Your task to perform on an android device: turn off notifications settings in the gmail app Image 0: 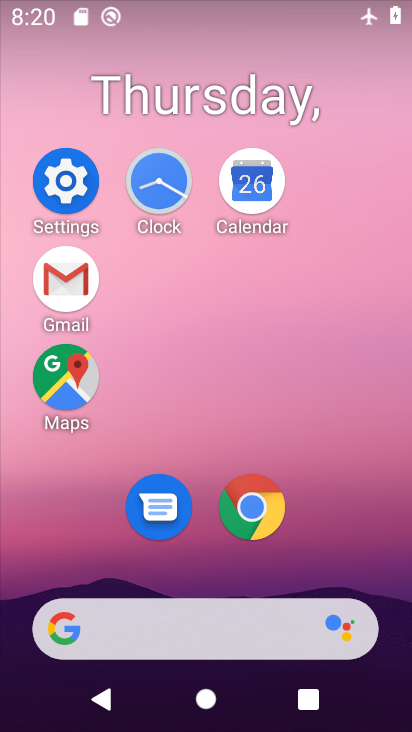
Step 0: click (73, 259)
Your task to perform on an android device: turn off notifications settings in the gmail app Image 1: 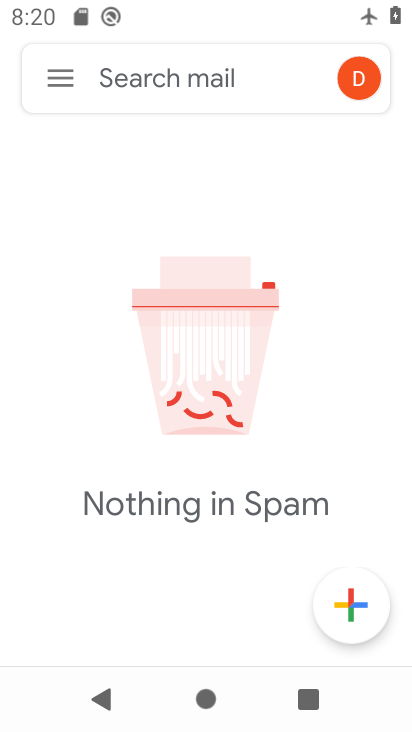
Step 1: click (39, 95)
Your task to perform on an android device: turn off notifications settings in the gmail app Image 2: 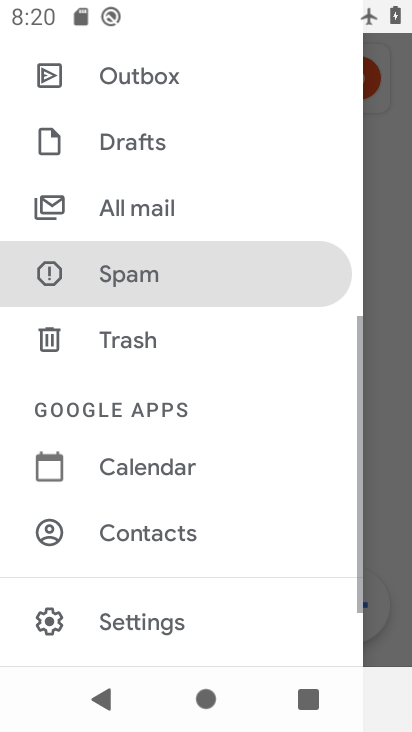
Step 2: drag from (287, 608) to (282, 213)
Your task to perform on an android device: turn off notifications settings in the gmail app Image 3: 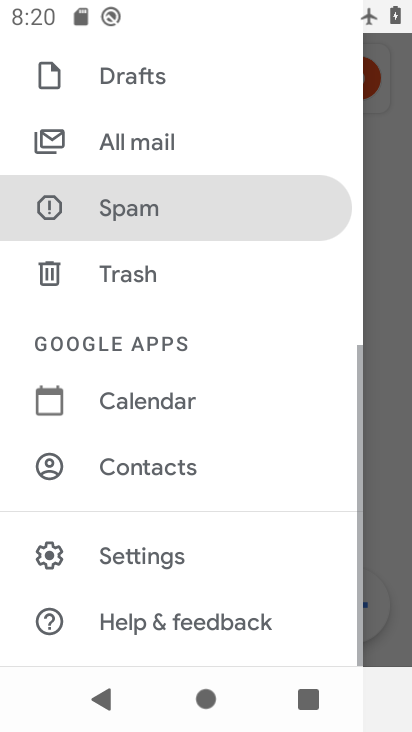
Step 3: click (206, 539)
Your task to perform on an android device: turn off notifications settings in the gmail app Image 4: 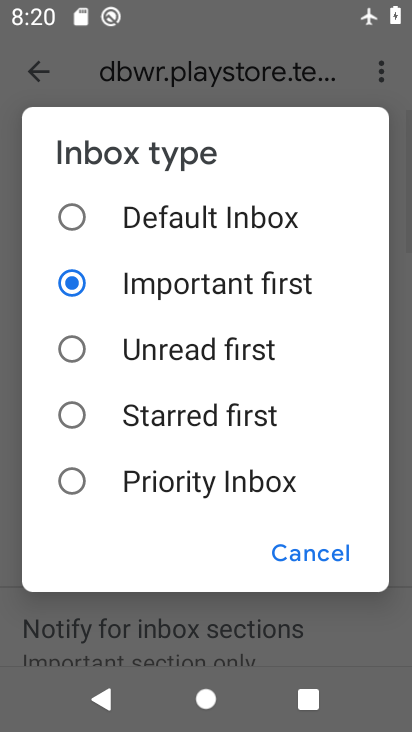
Step 4: click (309, 554)
Your task to perform on an android device: turn off notifications settings in the gmail app Image 5: 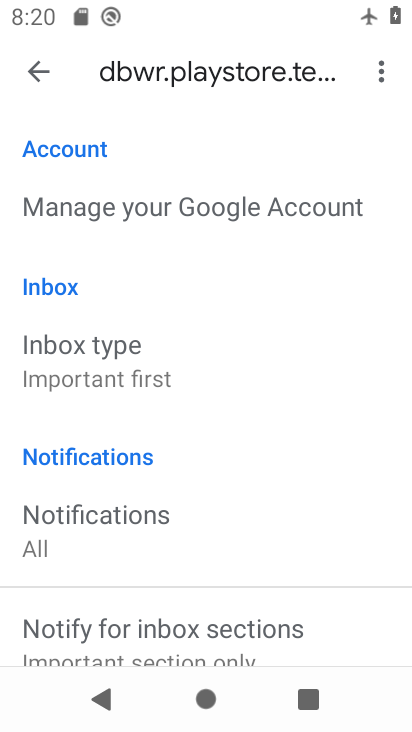
Step 5: click (207, 538)
Your task to perform on an android device: turn off notifications settings in the gmail app Image 6: 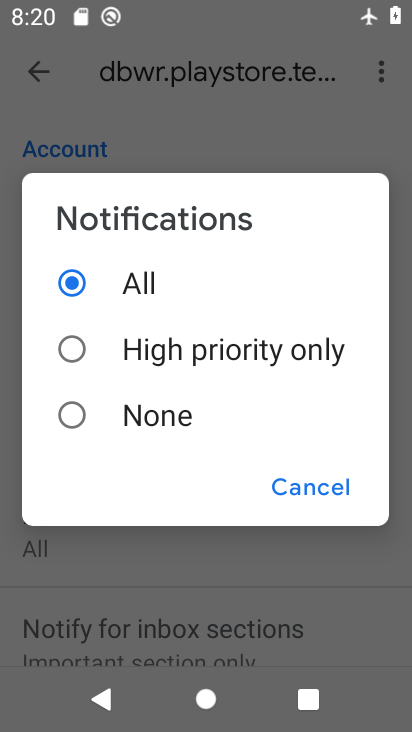
Step 6: click (177, 417)
Your task to perform on an android device: turn off notifications settings in the gmail app Image 7: 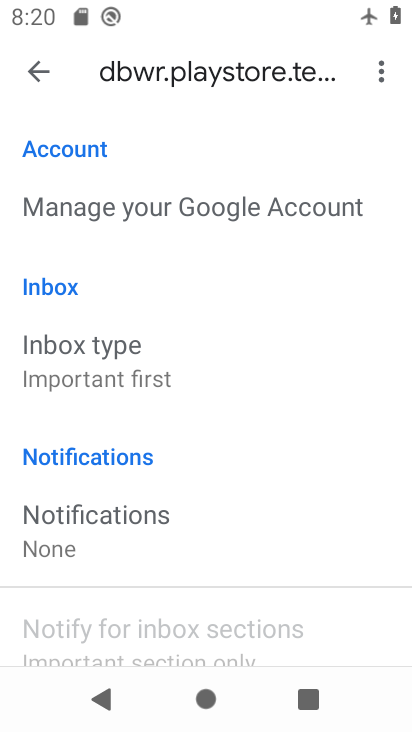
Step 7: task complete